Your task to perform on an android device: turn on data saver in the chrome app Image 0: 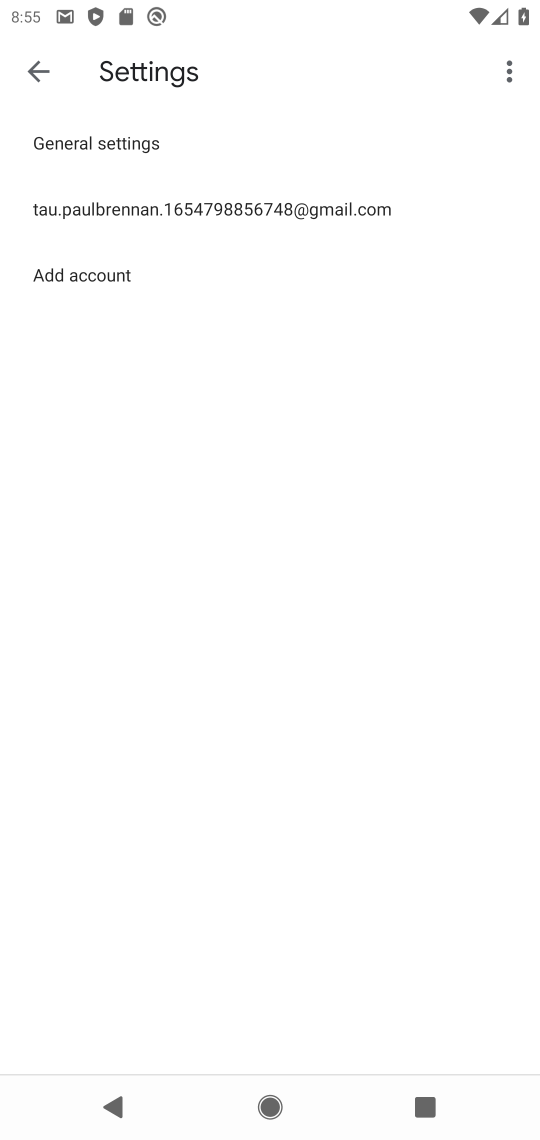
Step 0: press home button
Your task to perform on an android device: turn on data saver in the chrome app Image 1: 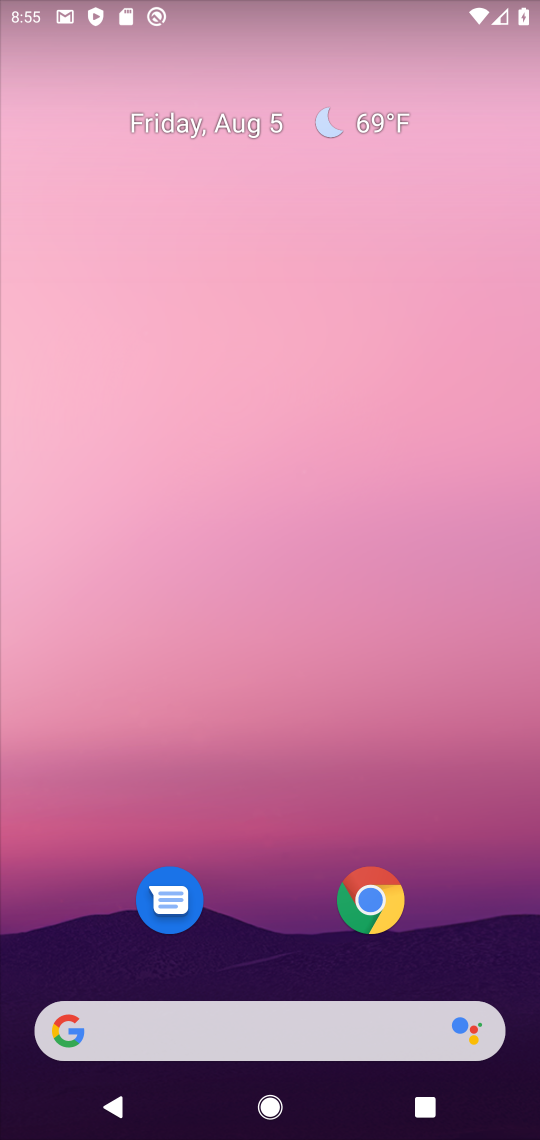
Step 1: click (376, 907)
Your task to perform on an android device: turn on data saver in the chrome app Image 2: 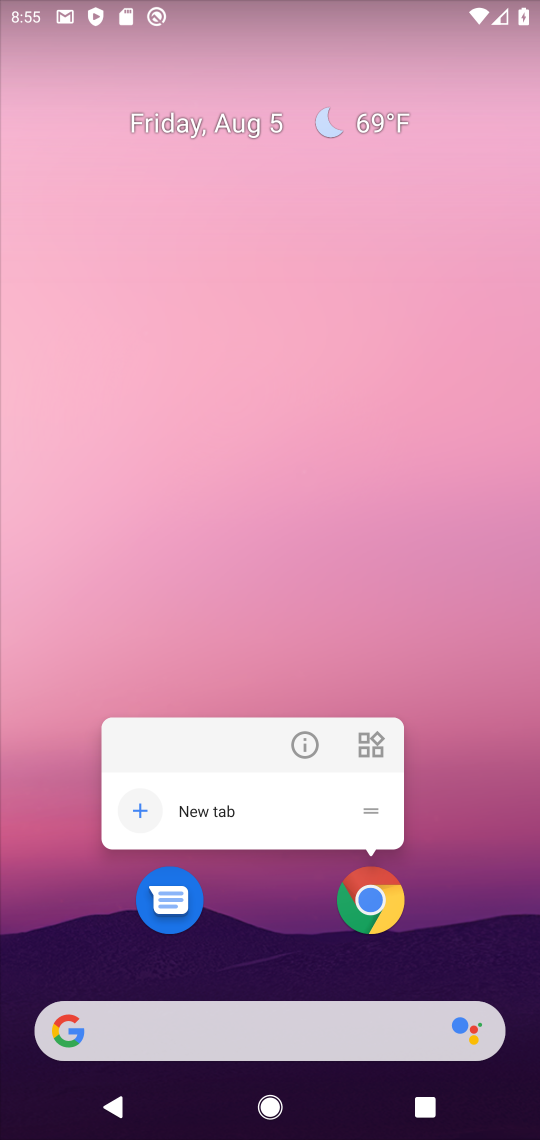
Step 2: click (376, 907)
Your task to perform on an android device: turn on data saver in the chrome app Image 3: 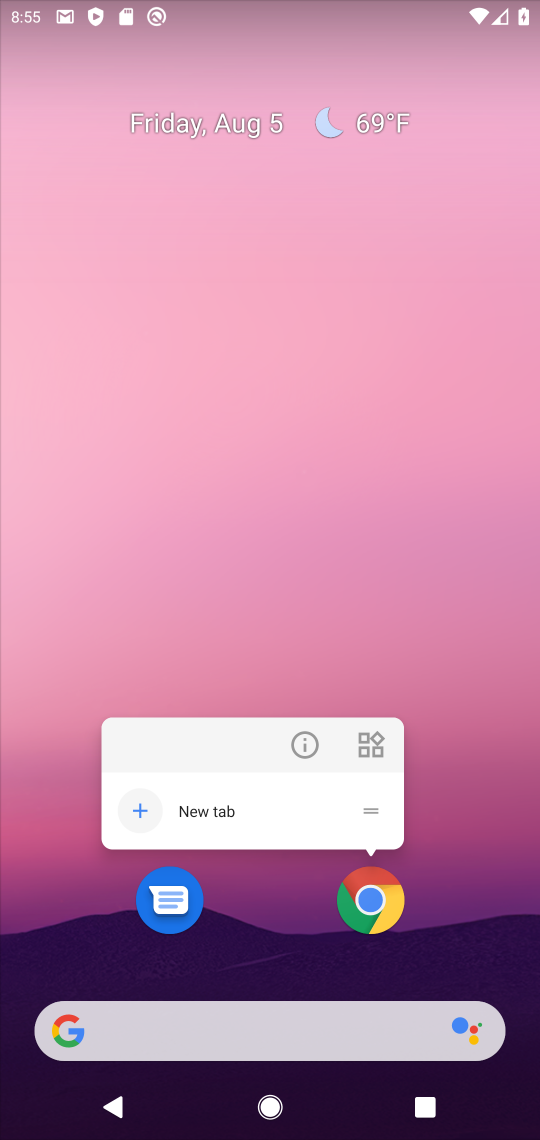
Step 3: click (376, 907)
Your task to perform on an android device: turn on data saver in the chrome app Image 4: 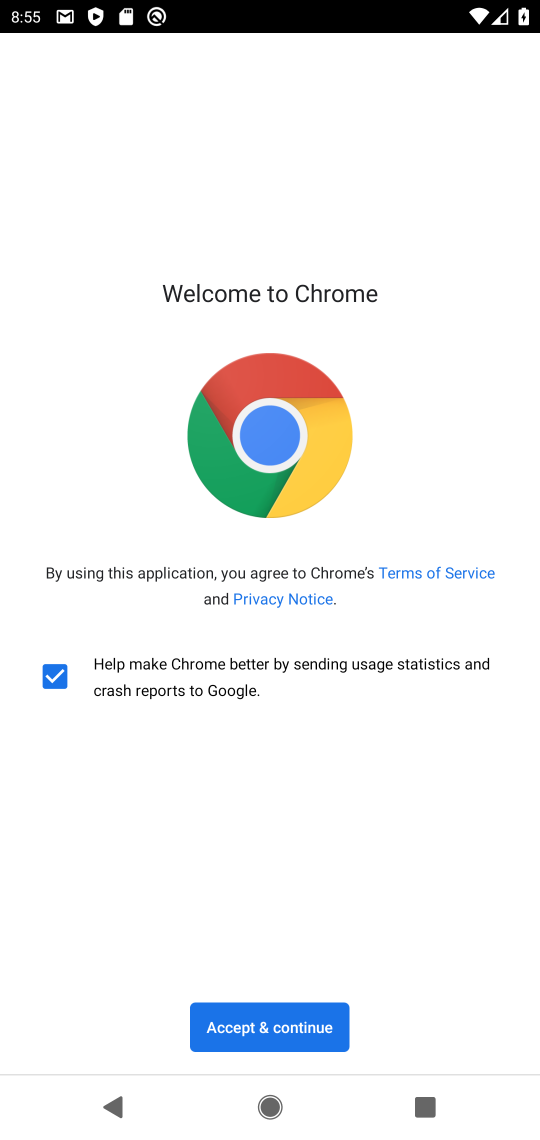
Step 4: click (273, 1028)
Your task to perform on an android device: turn on data saver in the chrome app Image 5: 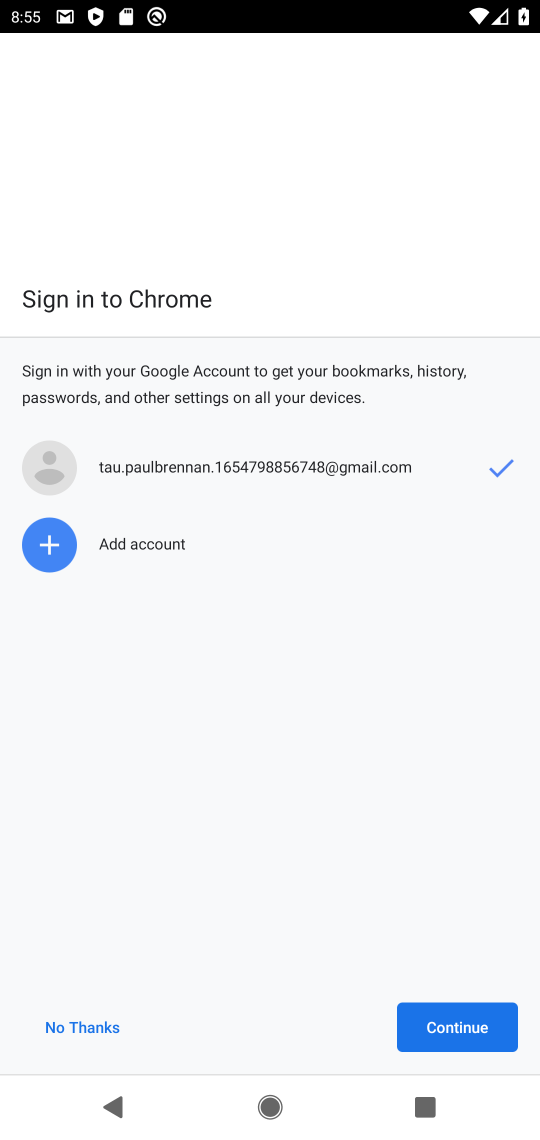
Step 5: click (445, 1036)
Your task to perform on an android device: turn on data saver in the chrome app Image 6: 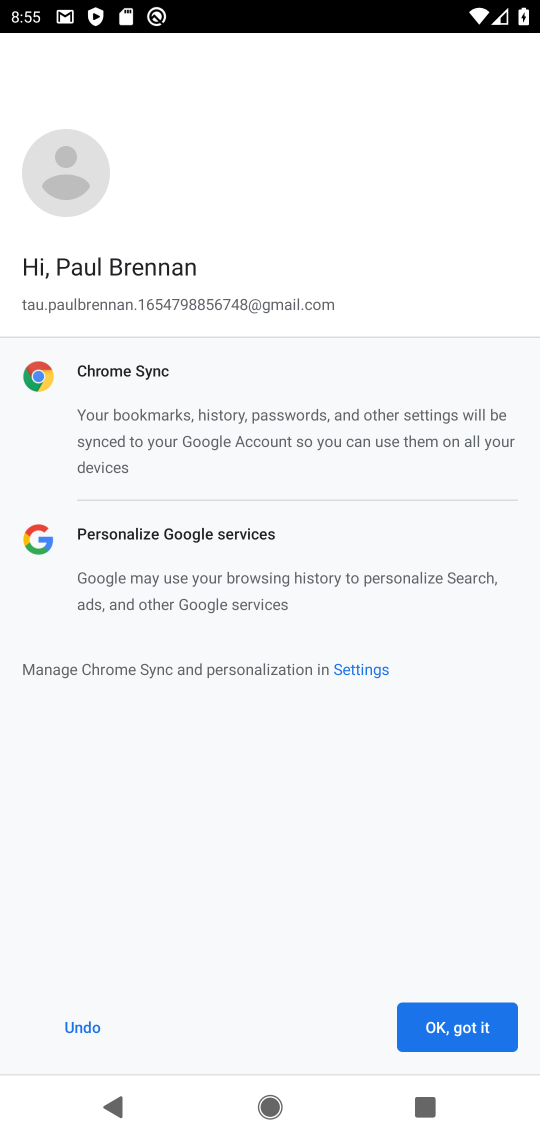
Step 6: click (444, 1034)
Your task to perform on an android device: turn on data saver in the chrome app Image 7: 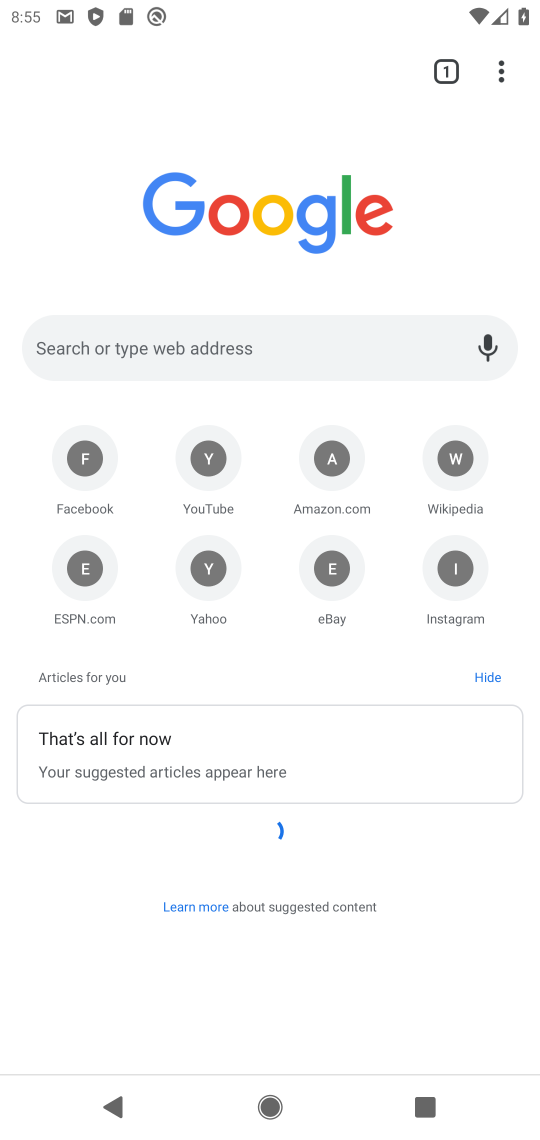
Step 7: click (500, 75)
Your task to perform on an android device: turn on data saver in the chrome app Image 8: 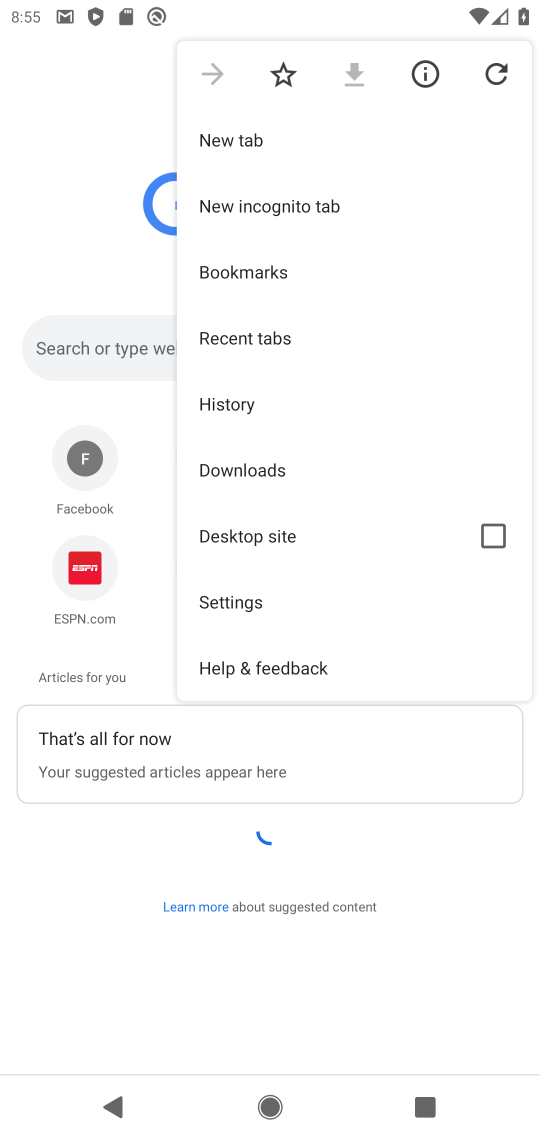
Step 8: click (208, 613)
Your task to perform on an android device: turn on data saver in the chrome app Image 9: 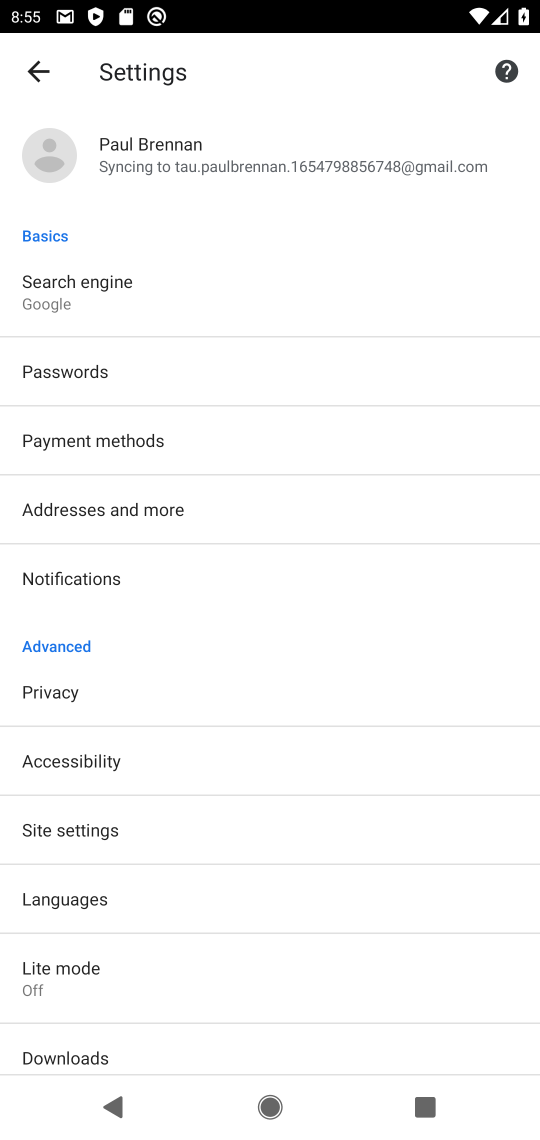
Step 9: click (165, 976)
Your task to perform on an android device: turn on data saver in the chrome app Image 10: 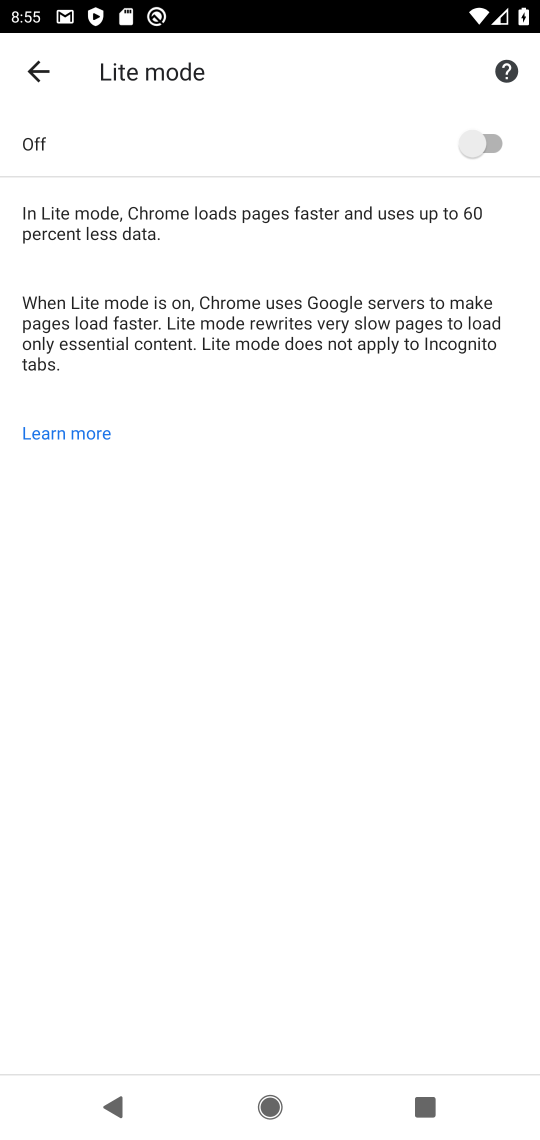
Step 10: click (483, 140)
Your task to perform on an android device: turn on data saver in the chrome app Image 11: 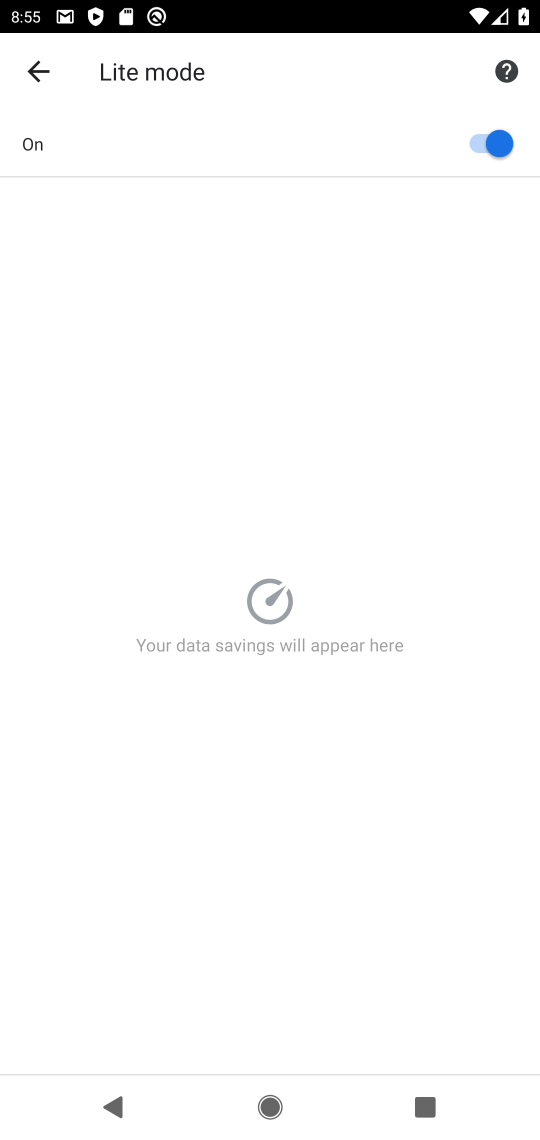
Step 11: task complete